Your task to perform on an android device: What's the weather going to be tomorrow? Image 0: 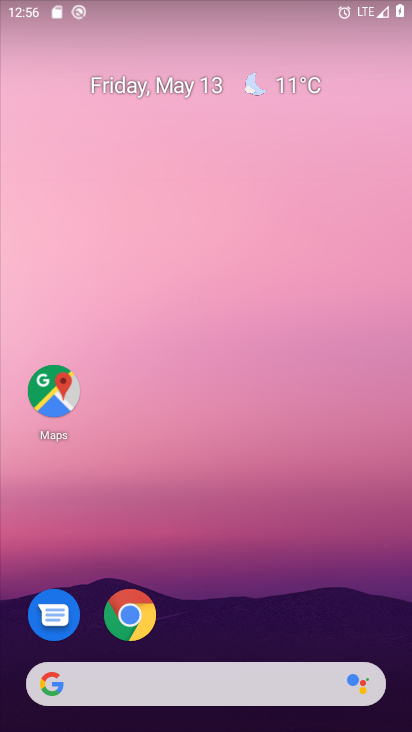
Step 0: click (279, 88)
Your task to perform on an android device: What's the weather going to be tomorrow? Image 1: 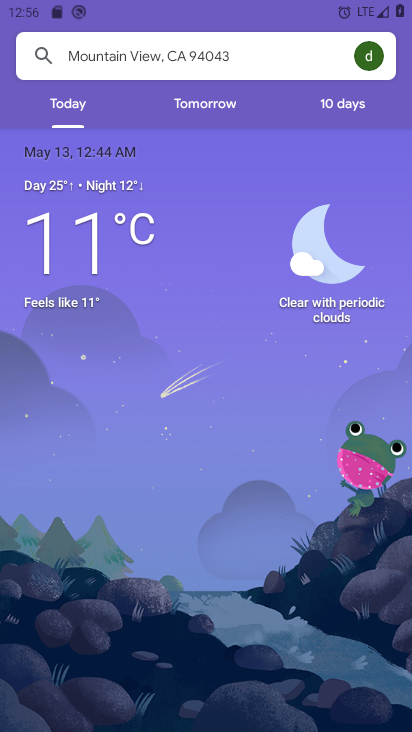
Step 1: click (203, 103)
Your task to perform on an android device: What's the weather going to be tomorrow? Image 2: 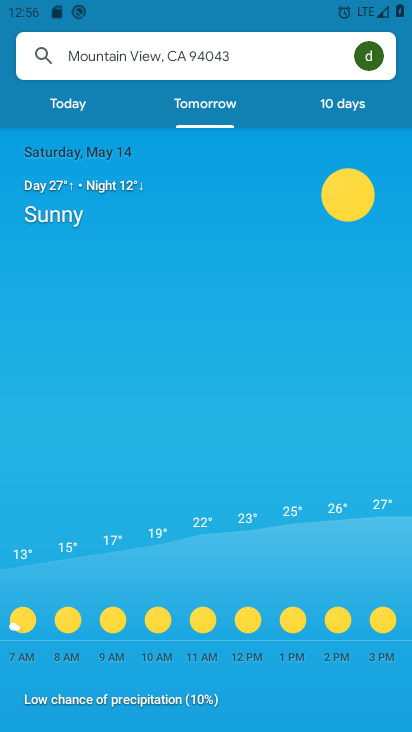
Step 2: task complete